Your task to perform on an android device: Search for pizza restaurants on Maps Image 0: 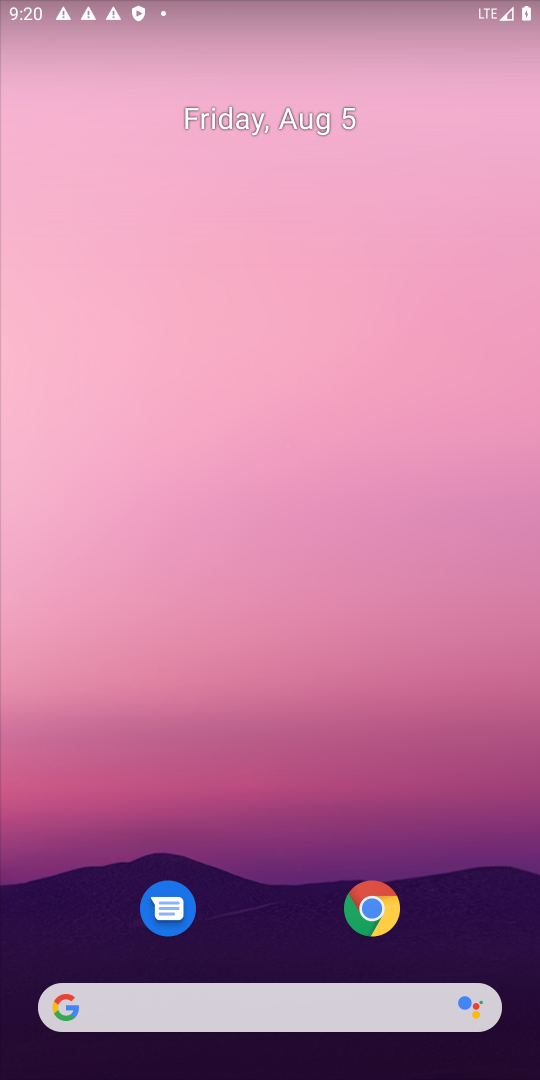
Step 0: drag from (288, 944) to (272, 211)
Your task to perform on an android device: Search for pizza restaurants on Maps Image 1: 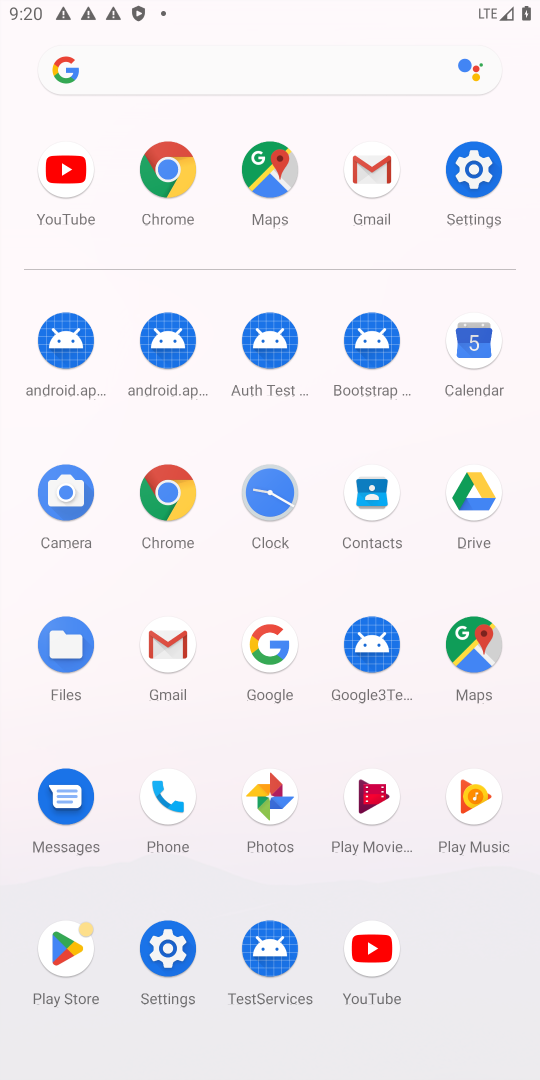
Step 1: click (471, 618)
Your task to perform on an android device: Search for pizza restaurants on Maps Image 2: 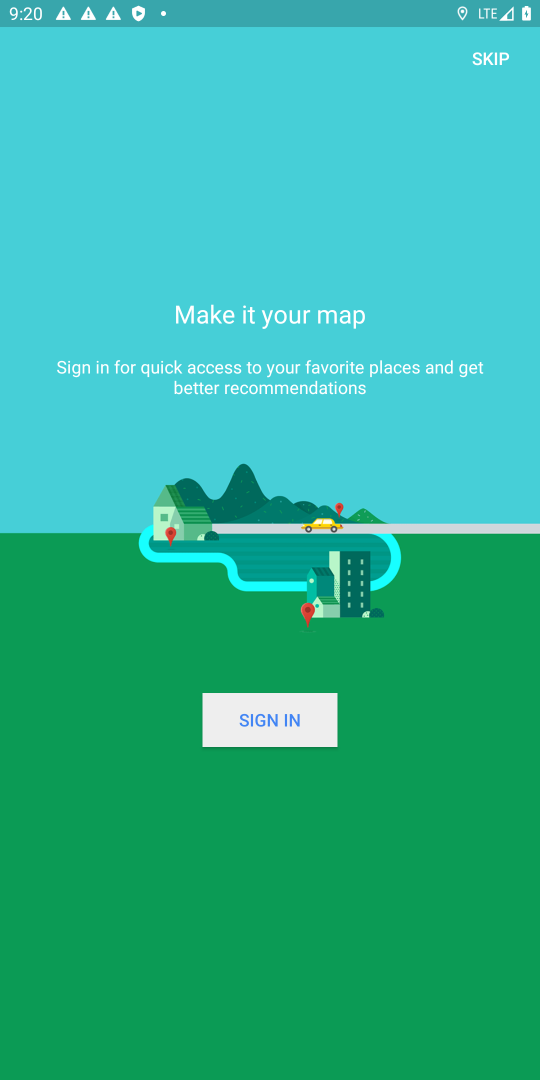
Step 2: task complete